Your task to perform on an android device: turn off location Image 0: 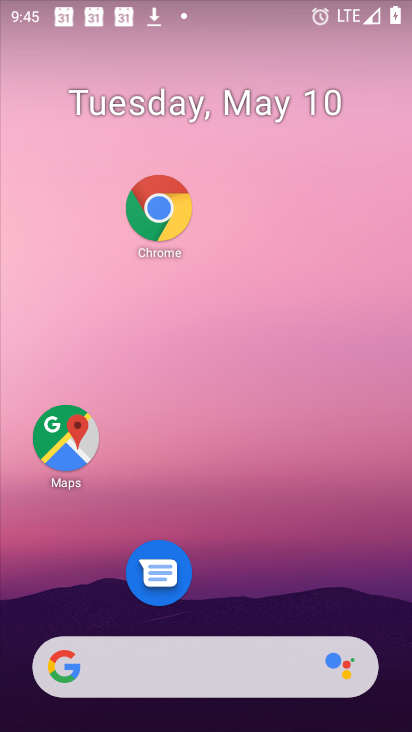
Step 0: drag from (294, 705) to (327, 338)
Your task to perform on an android device: turn off location Image 1: 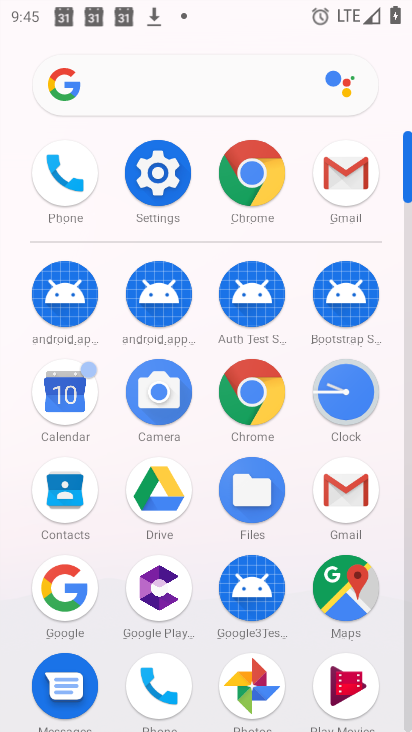
Step 1: click (164, 185)
Your task to perform on an android device: turn off location Image 2: 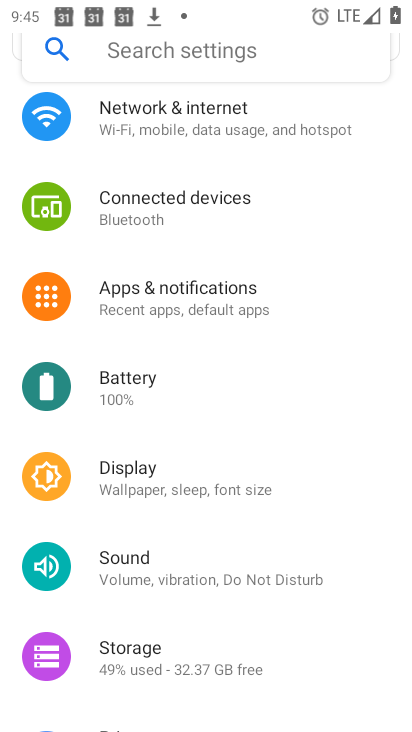
Step 2: drag from (168, 151) to (179, 230)
Your task to perform on an android device: turn off location Image 3: 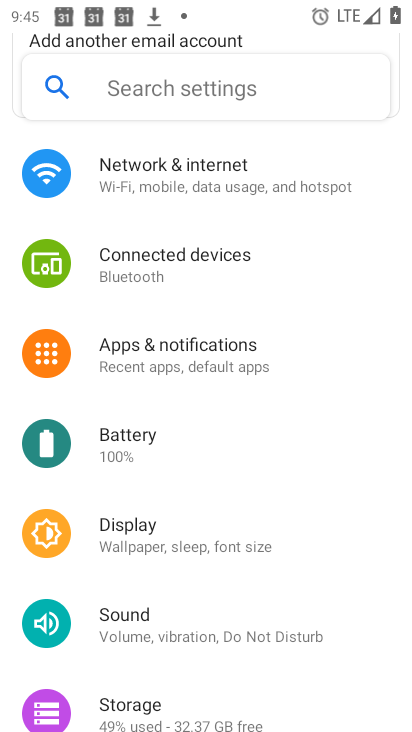
Step 3: click (212, 99)
Your task to perform on an android device: turn off location Image 4: 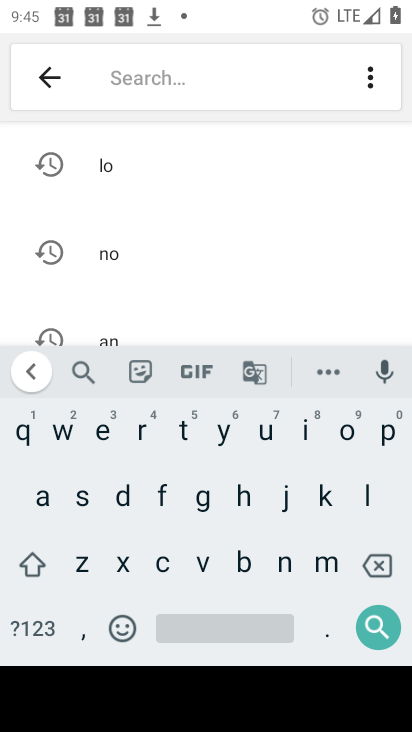
Step 4: click (139, 165)
Your task to perform on an android device: turn off location Image 5: 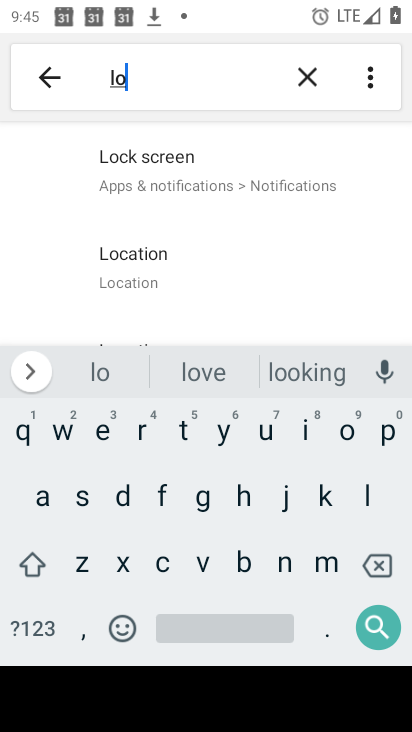
Step 5: click (189, 261)
Your task to perform on an android device: turn off location Image 6: 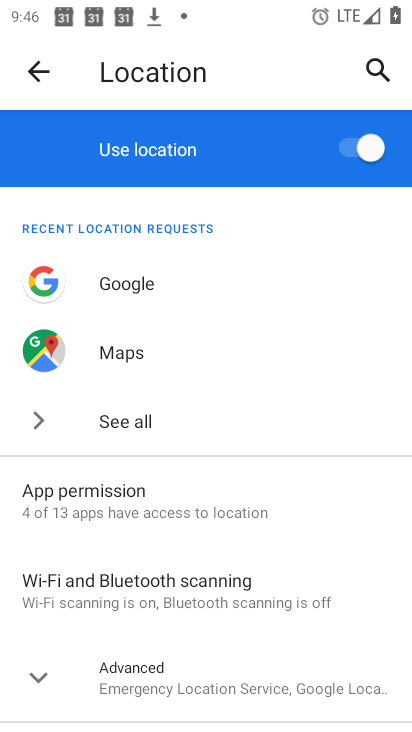
Step 6: click (357, 154)
Your task to perform on an android device: turn off location Image 7: 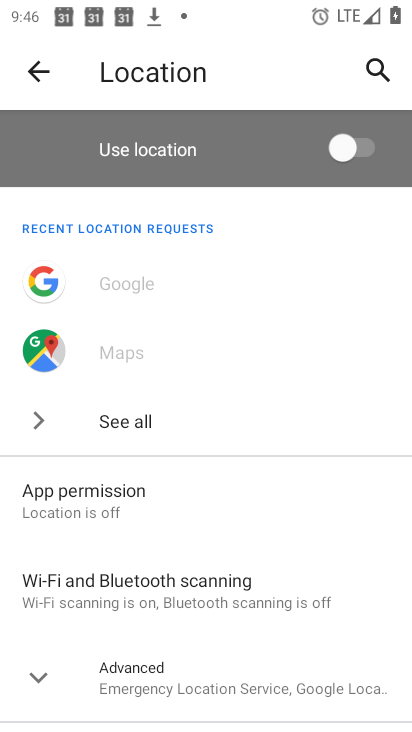
Step 7: task complete